Your task to perform on an android device: Do I have any events tomorrow? Image 0: 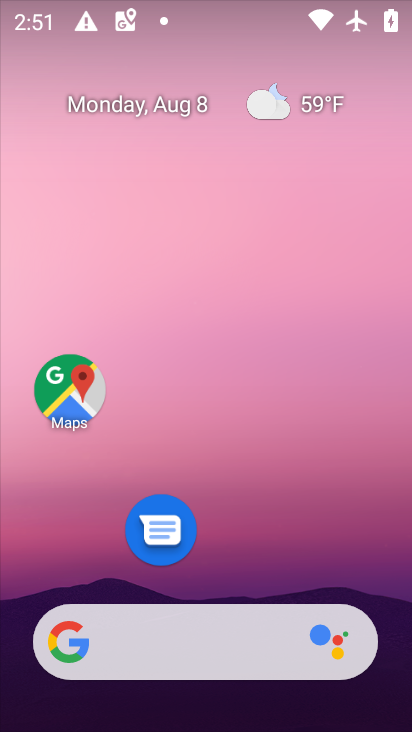
Step 0: drag from (246, 331) to (246, 67)
Your task to perform on an android device: Do I have any events tomorrow? Image 1: 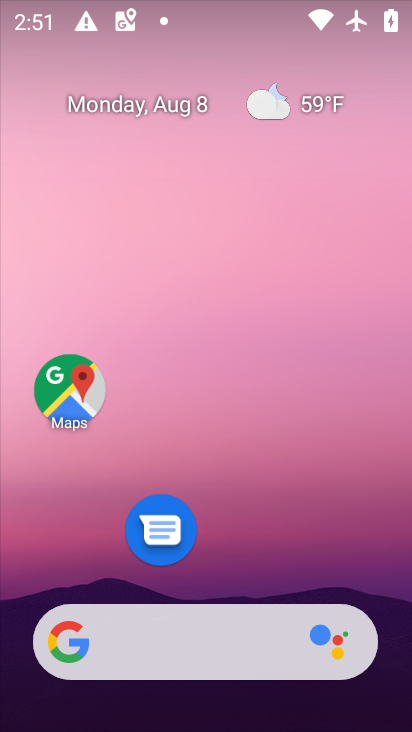
Step 1: drag from (215, 251) to (206, 61)
Your task to perform on an android device: Do I have any events tomorrow? Image 2: 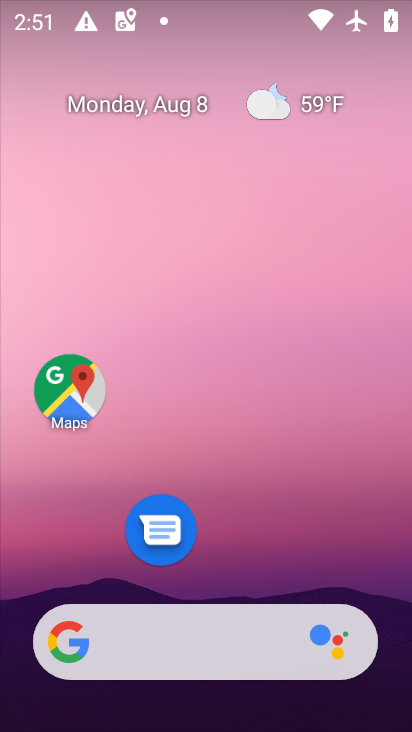
Step 2: drag from (219, 513) to (239, 77)
Your task to perform on an android device: Do I have any events tomorrow? Image 3: 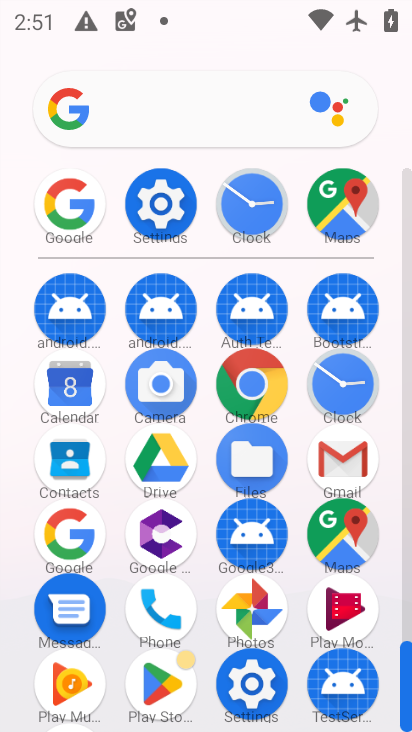
Step 3: click (62, 391)
Your task to perform on an android device: Do I have any events tomorrow? Image 4: 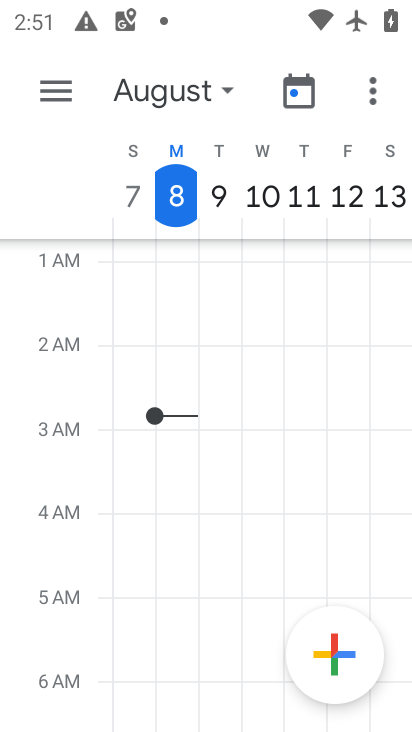
Step 4: click (221, 193)
Your task to perform on an android device: Do I have any events tomorrow? Image 5: 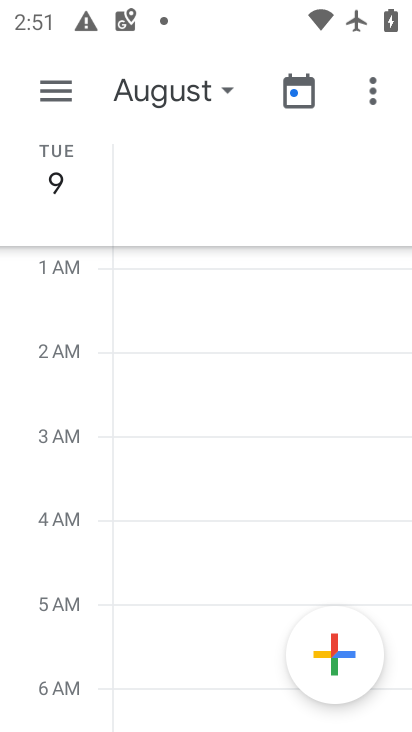
Step 5: task complete